Your task to perform on an android device: refresh tabs in the chrome app Image 0: 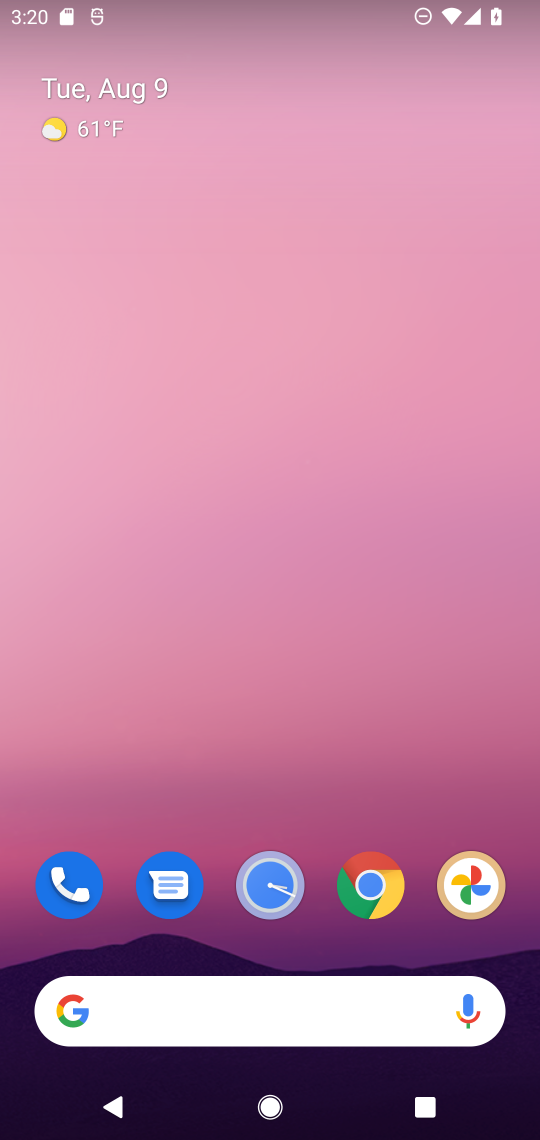
Step 0: click (367, 865)
Your task to perform on an android device: refresh tabs in the chrome app Image 1: 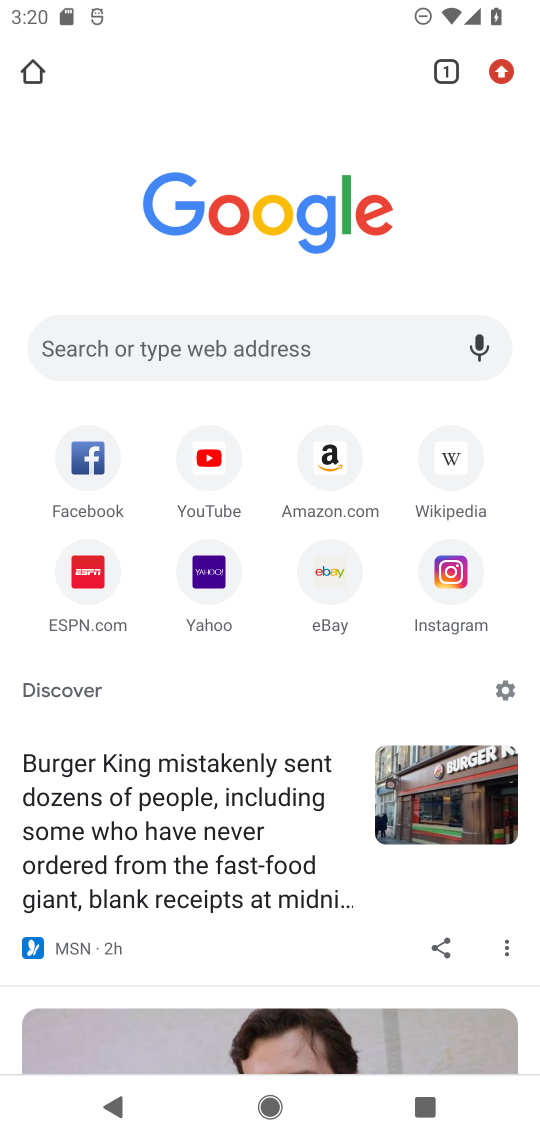
Step 1: task complete